Your task to perform on an android device: open app "Gmail" (install if not already installed), go to login, and select forgot password Image 0: 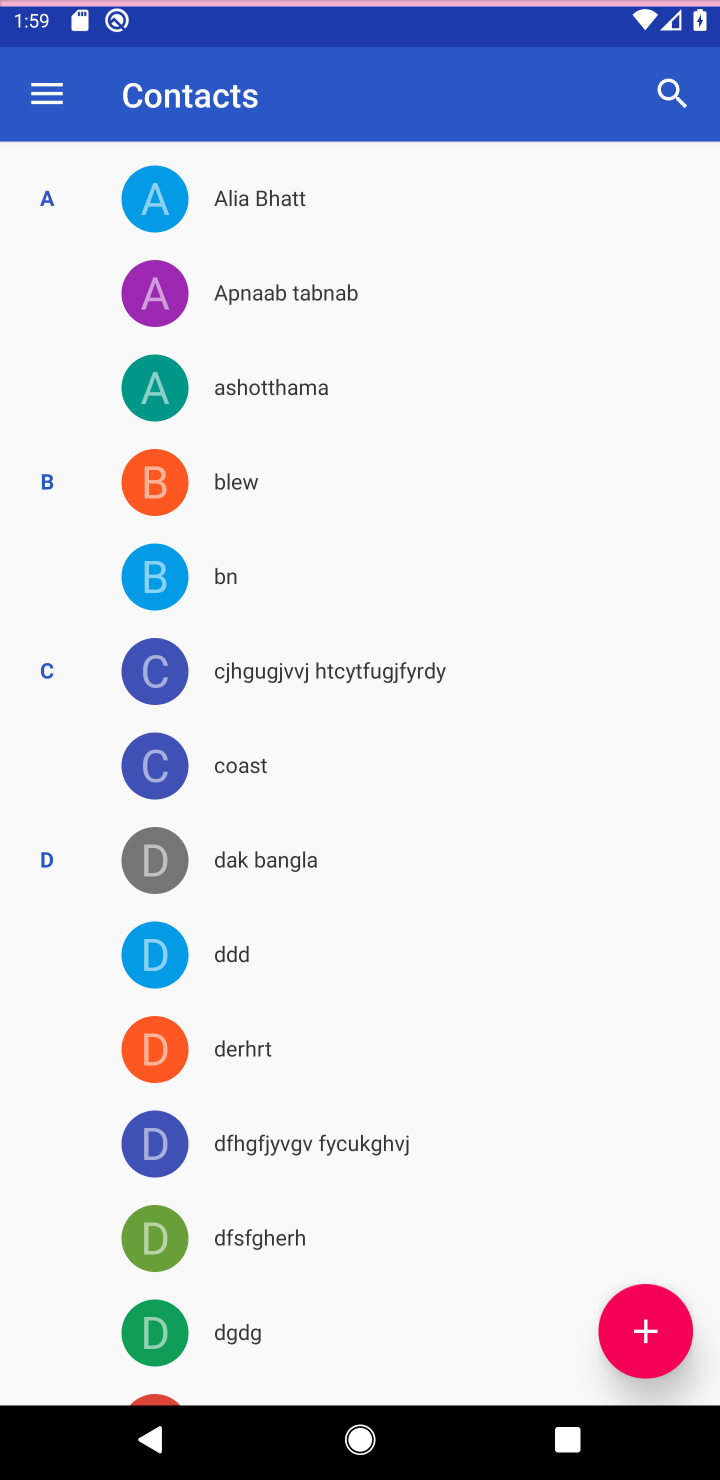
Step 0: press back button
Your task to perform on an android device: open app "Gmail" (install if not already installed), go to login, and select forgot password Image 1: 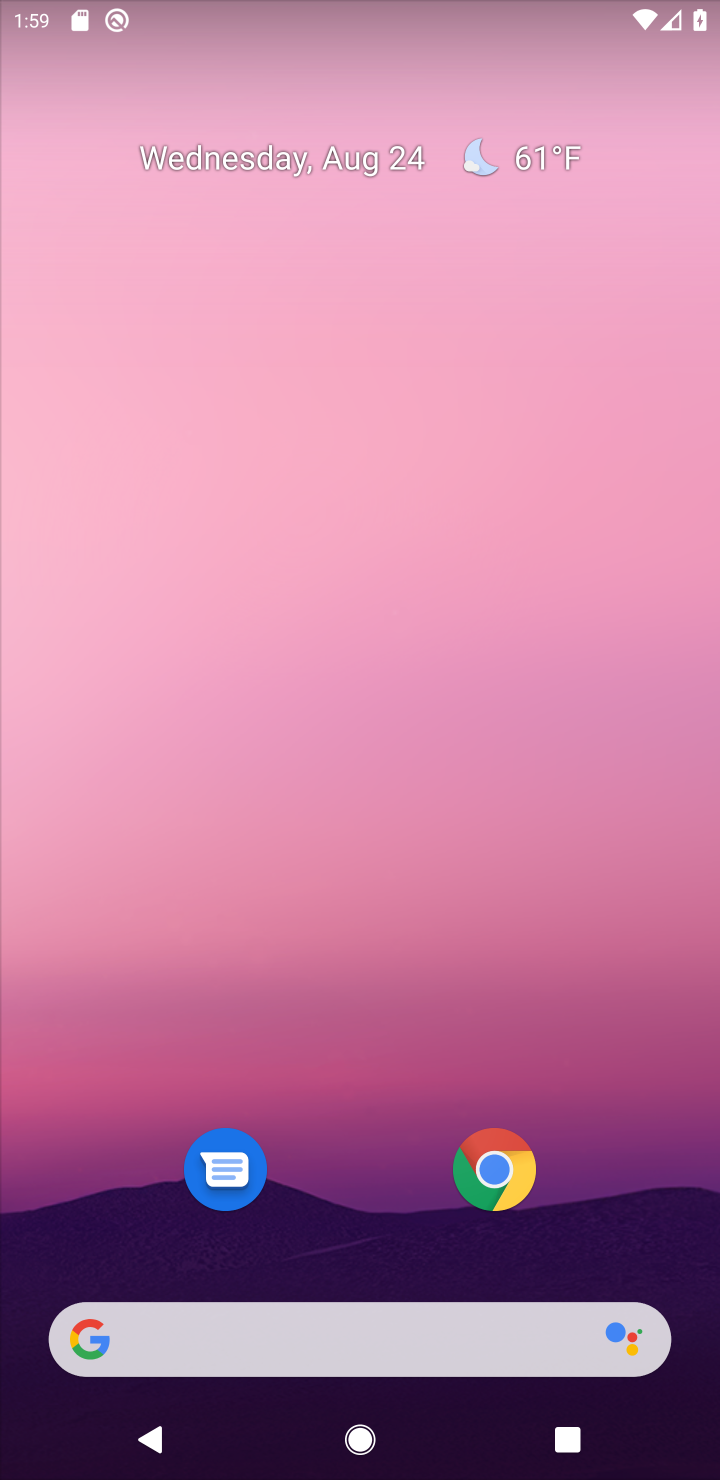
Step 1: press back button
Your task to perform on an android device: open app "Gmail" (install if not already installed), go to login, and select forgot password Image 2: 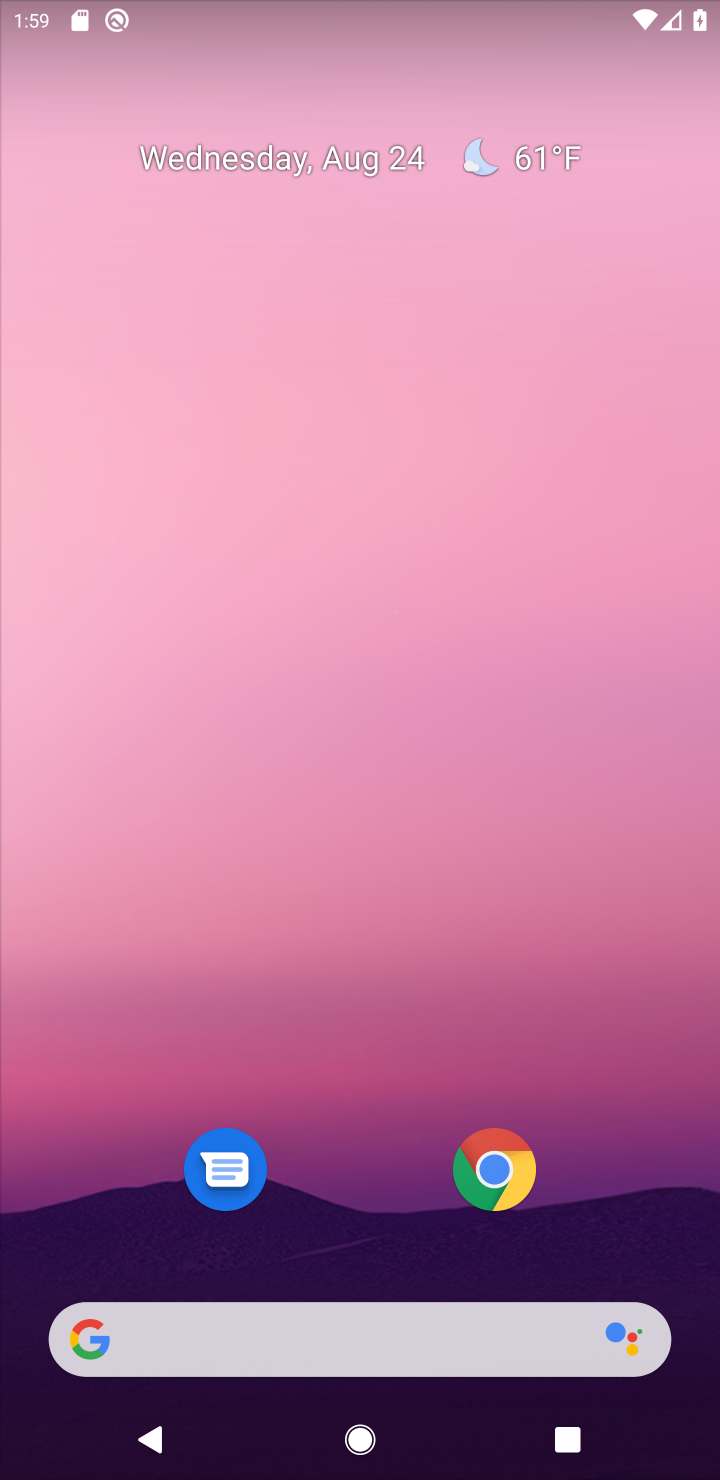
Step 2: drag from (339, 1221) to (331, 379)
Your task to perform on an android device: open app "Gmail" (install if not already installed), go to login, and select forgot password Image 3: 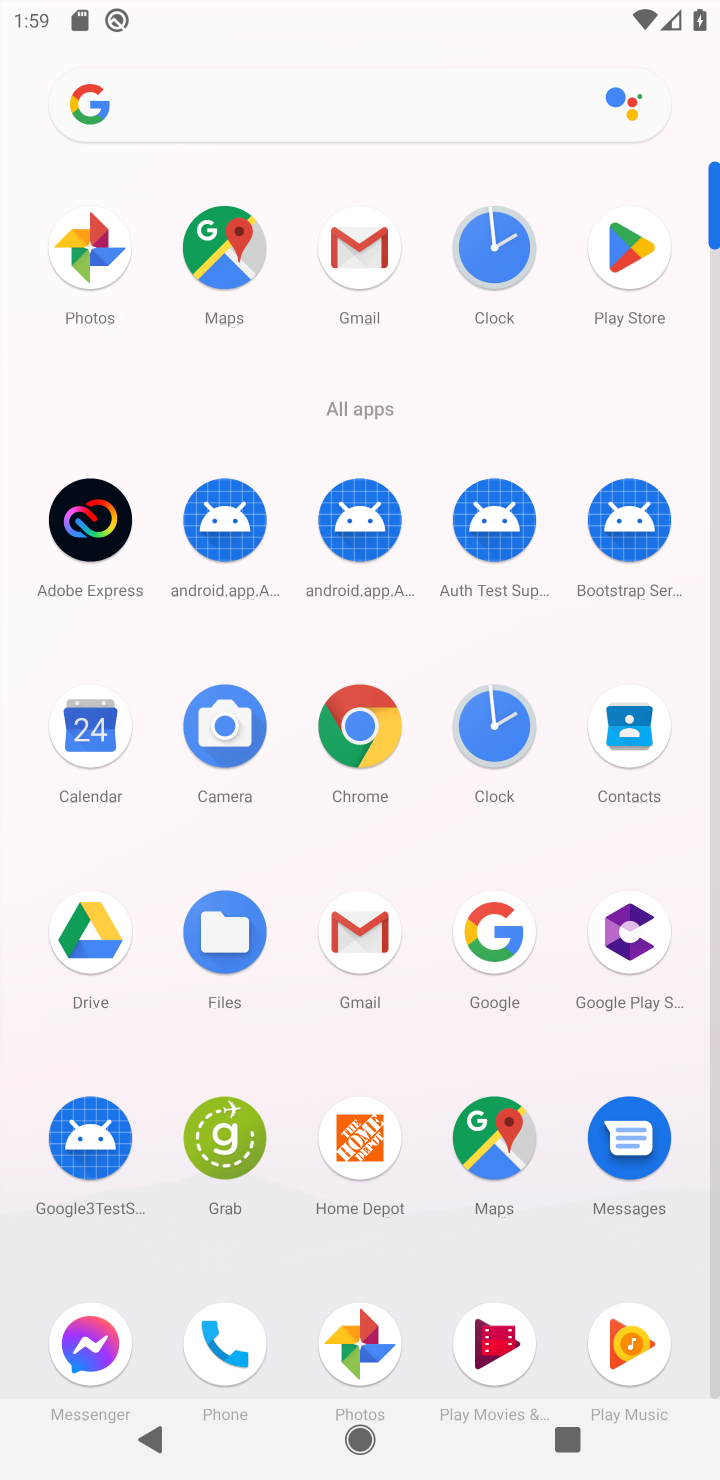
Step 3: click (367, 908)
Your task to perform on an android device: open app "Gmail" (install if not already installed), go to login, and select forgot password Image 4: 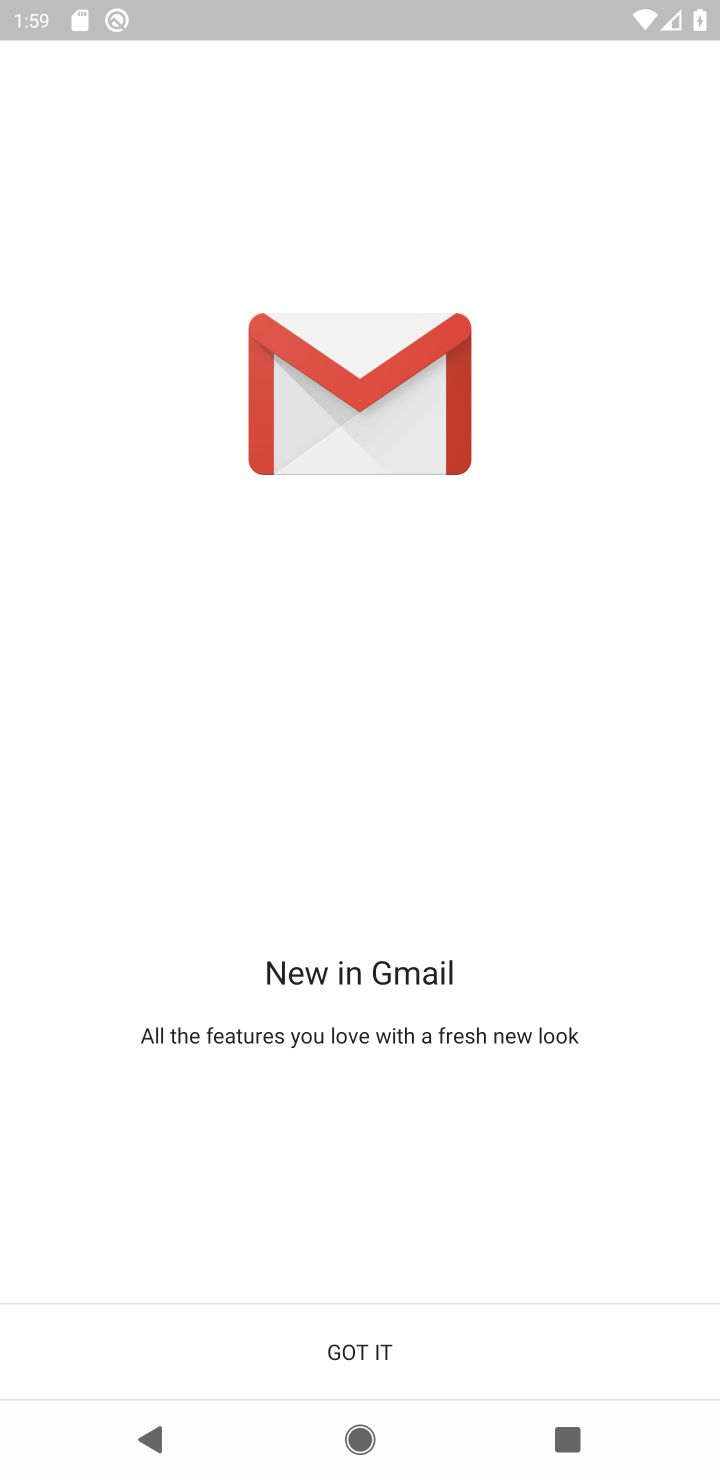
Step 4: click (377, 1309)
Your task to perform on an android device: open app "Gmail" (install if not already installed), go to login, and select forgot password Image 5: 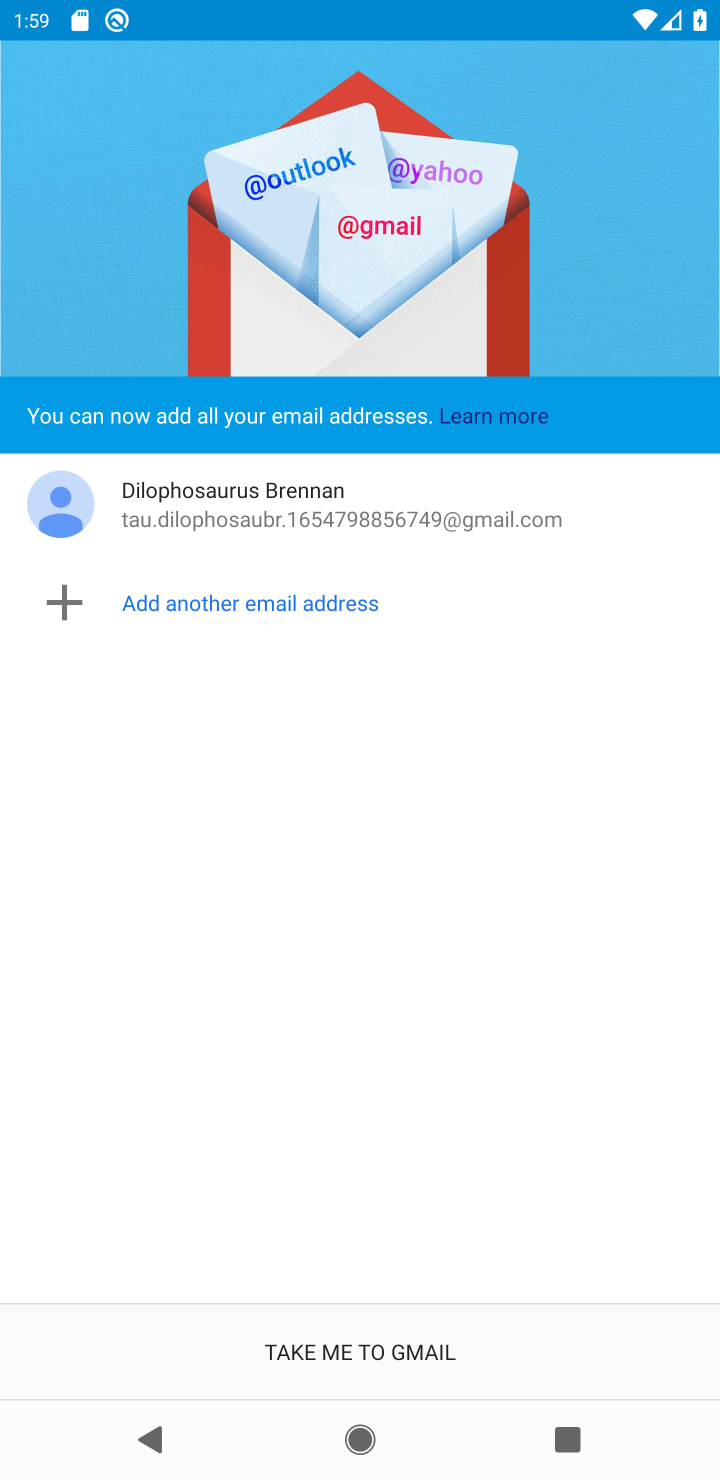
Step 5: click (271, 583)
Your task to perform on an android device: open app "Gmail" (install if not already installed), go to login, and select forgot password Image 6: 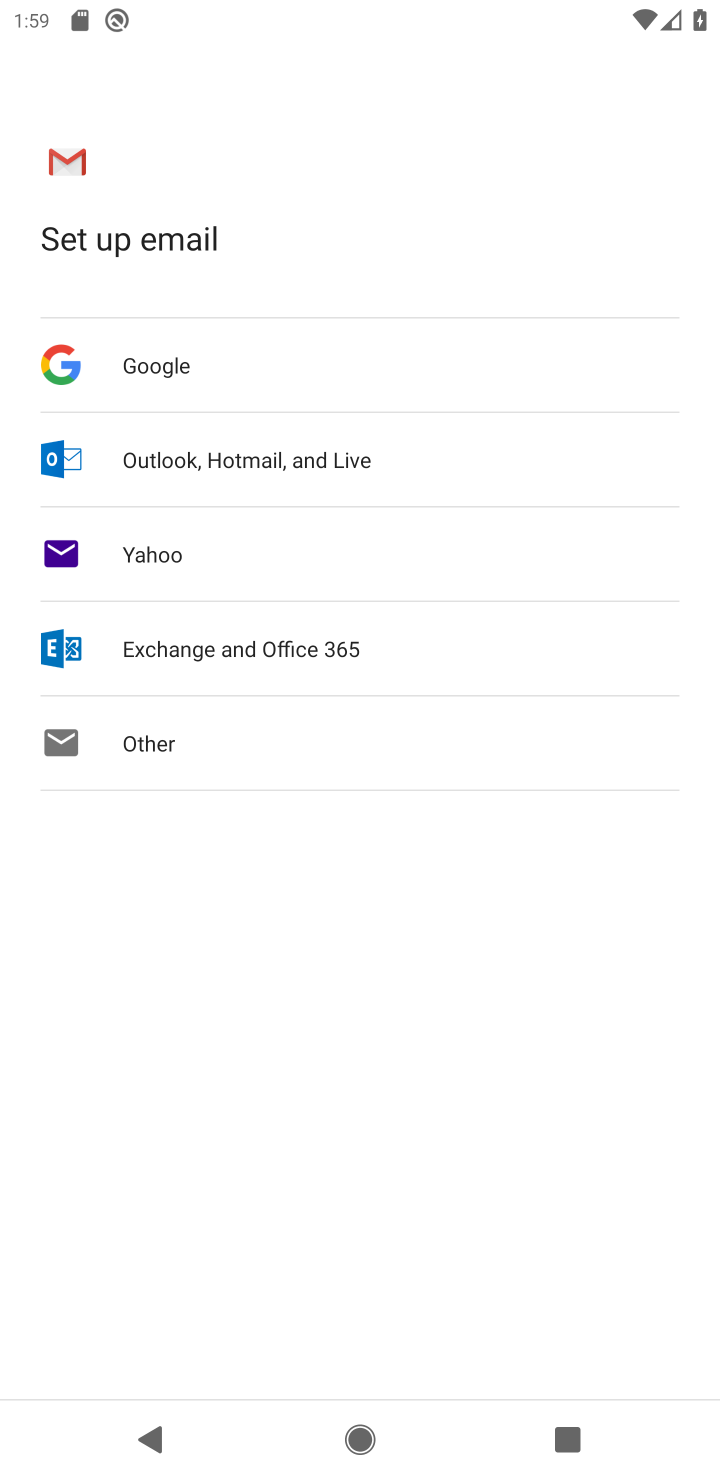
Step 6: click (117, 334)
Your task to perform on an android device: open app "Gmail" (install if not already installed), go to login, and select forgot password Image 7: 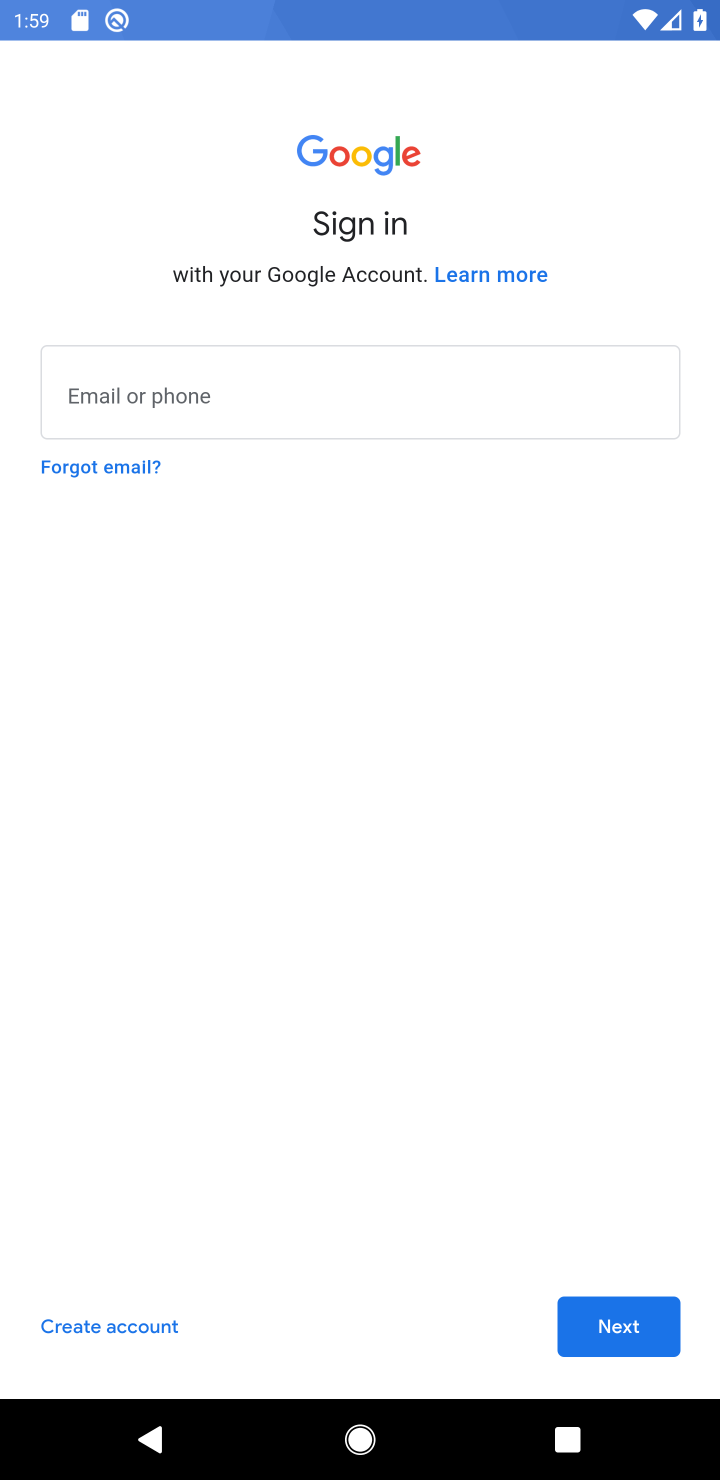
Step 7: click (86, 465)
Your task to perform on an android device: open app "Gmail" (install if not already installed), go to login, and select forgot password Image 8: 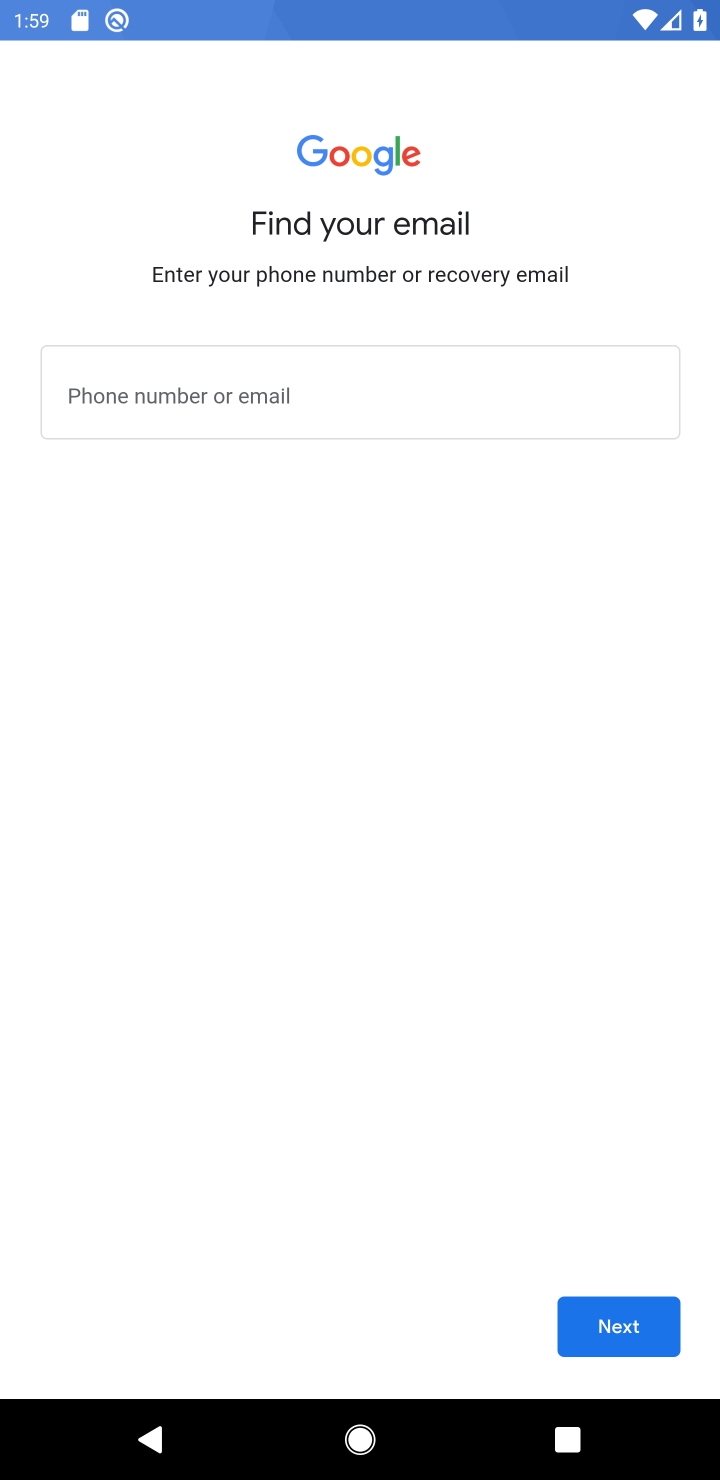
Step 8: task complete